Your task to perform on an android device: see tabs open on other devices in the chrome app Image 0: 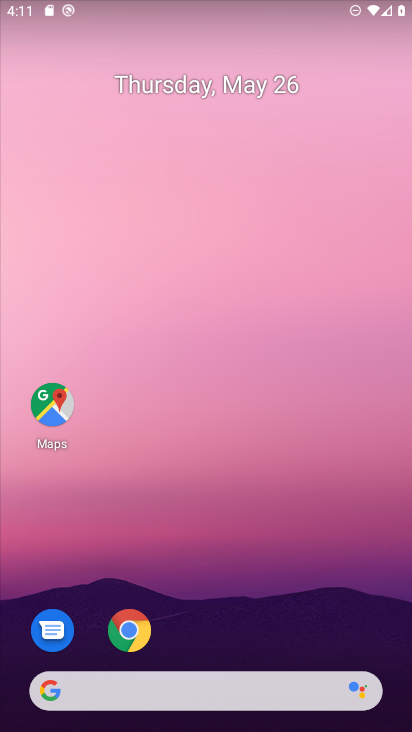
Step 0: click (128, 628)
Your task to perform on an android device: see tabs open on other devices in the chrome app Image 1: 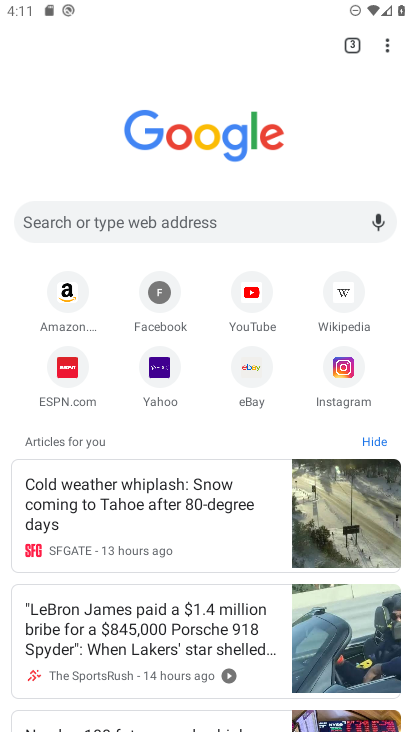
Step 1: click (389, 43)
Your task to perform on an android device: see tabs open on other devices in the chrome app Image 2: 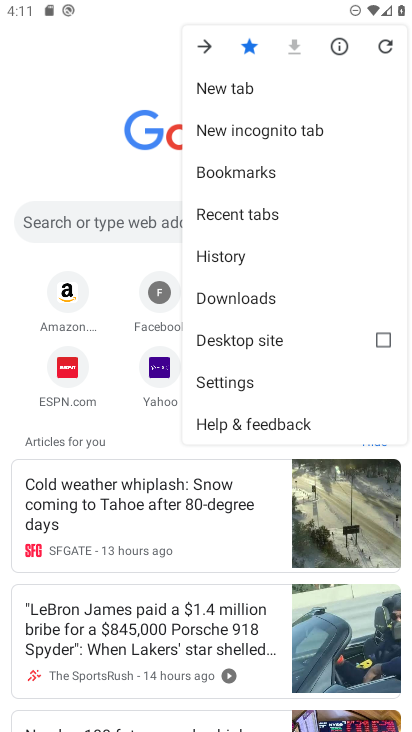
Step 2: click (259, 217)
Your task to perform on an android device: see tabs open on other devices in the chrome app Image 3: 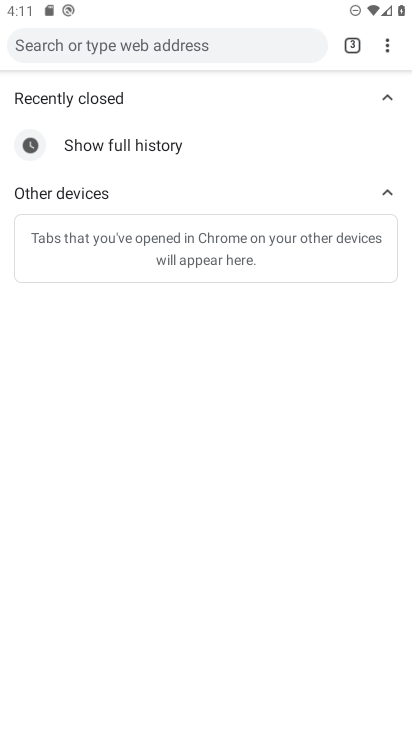
Step 3: task complete